Your task to perform on an android device: open app "Google Play services" Image 0: 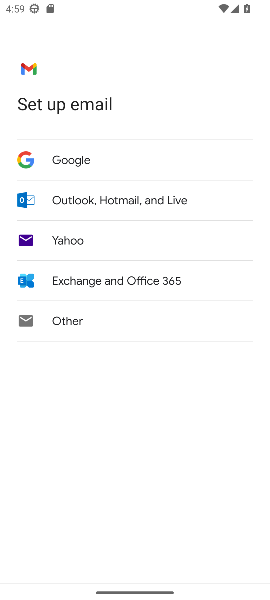
Step 0: press home button
Your task to perform on an android device: open app "Google Play services" Image 1: 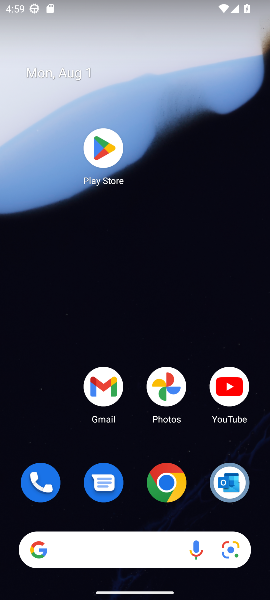
Step 1: click (98, 138)
Your task to perform on an android device: open app "Google Play services" Image 2: 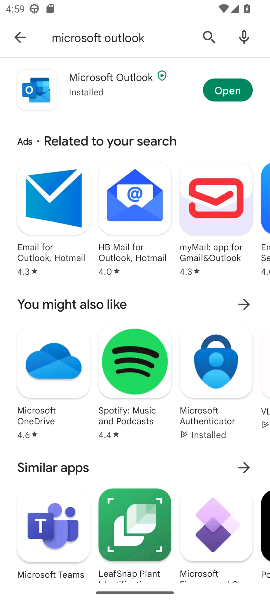
Step 2: click (203, 32)
Your task to perform on an android device: open app "Google Play services" Image 3: 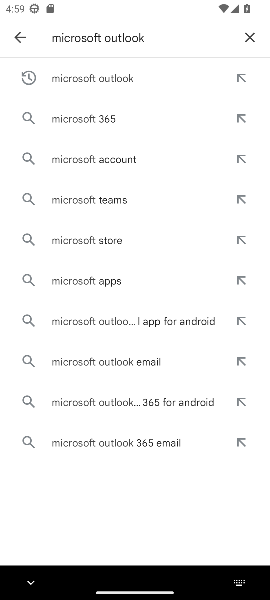
Step 3: click (247, 35)
Your task to perform on an android device: open app "Google Play services" Image 4: 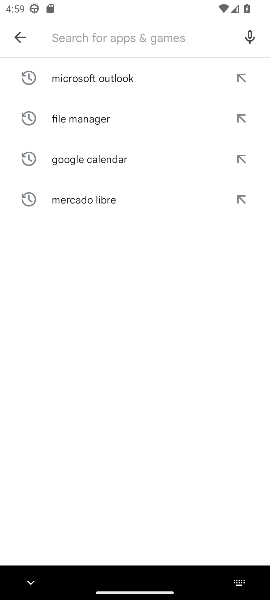
Step 4: type "Google Play services"
Your task to perform on an android device: open app "Google Play services" Image 5: 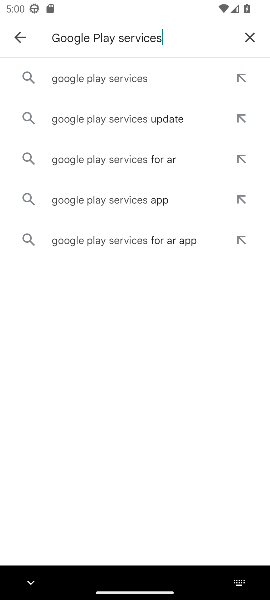
Step 5: click (125, 77)
Your task to perform on an android device: open app "Google Play services" Image 6: 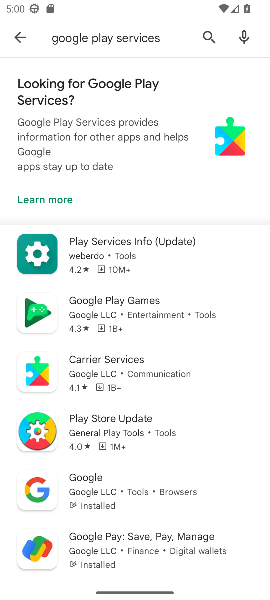
Step 6: drag from (158, 412) to (217, 282)
Your task to perform on an android device: open app "Google Play services" Image 7: 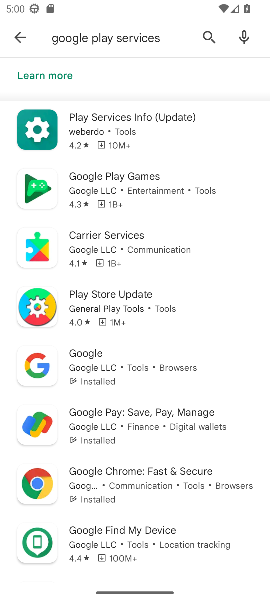
Step 7: drag from (151, 425) to (174, 284)
Your task to perform on an android device: open app "Google Play services" Image 8: 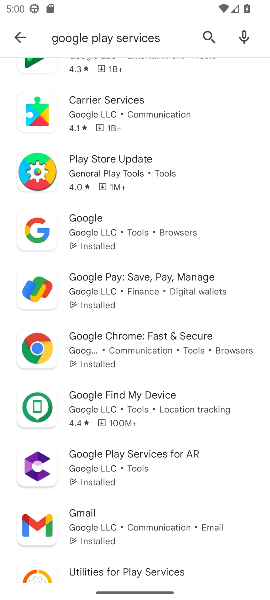
Step 8: click (125, 467)
Your task to perform on an android device: open app "Google Play services" Image 9: 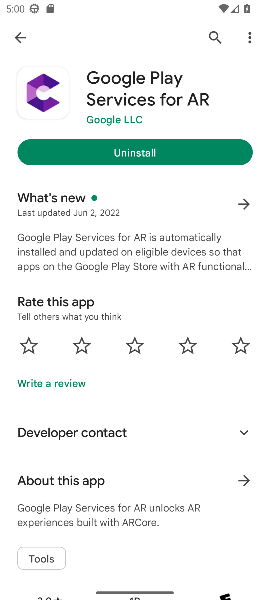
Step 9: task complete